Your task to perform on an android device: turn off smart reply in the gmail app Image 0: 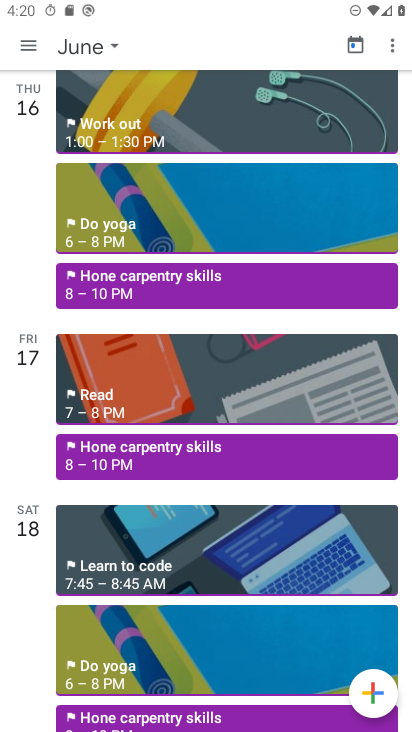
Step 0: press home button
Your task to perform on an android device: turn off smart reply in the gmail app Image 1: 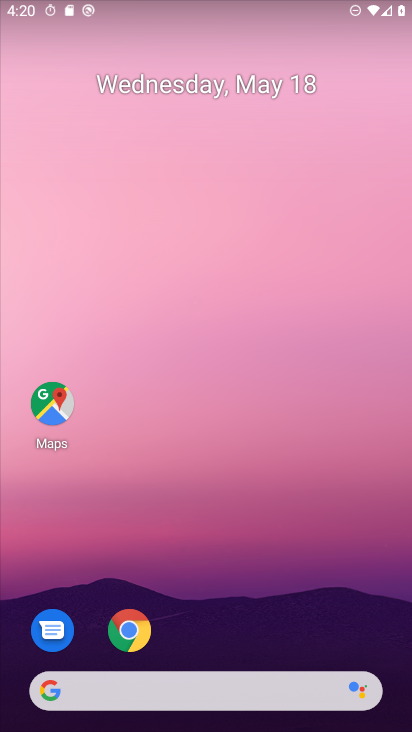
Step 1: press home button
Your task to perform on an android device: turn off smart reply in the gmail app Image 2: 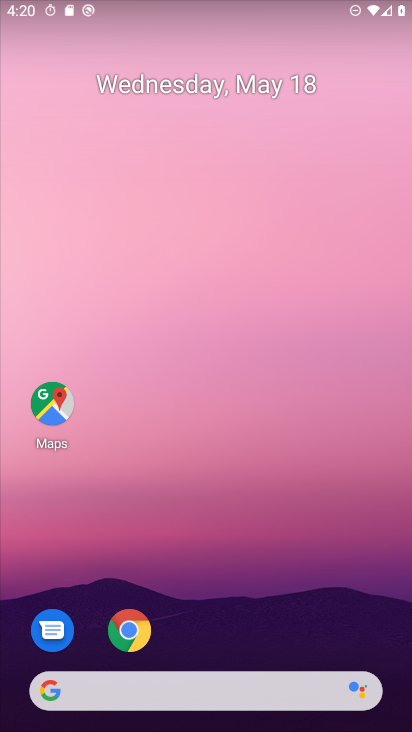
Step 2: drag from (214, 659) to (224, 5)
Your task to perform on an android device: turn off smart reply in the gmail app Image 3: 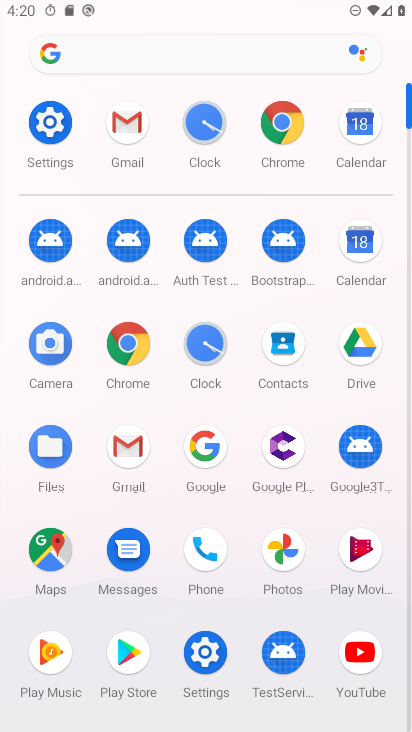
Step 3: click (126, 120)
Your task to perform on an android device: turn off smart reply in the gmail app Image 4: 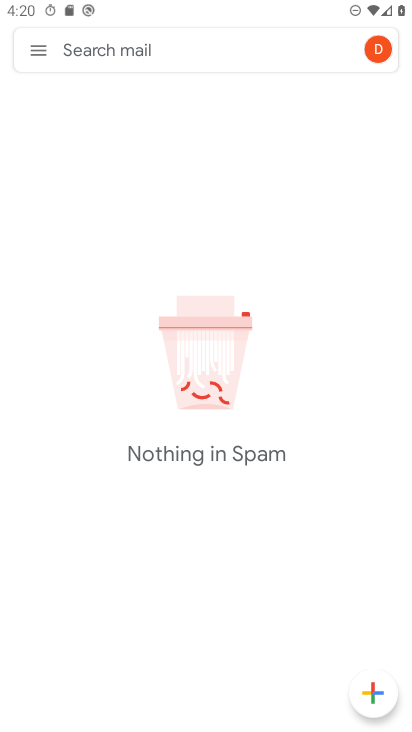
Step 4: click (42, 50)
Your task to perform on an android device: turn off smart reply in the gmail app Image 5: 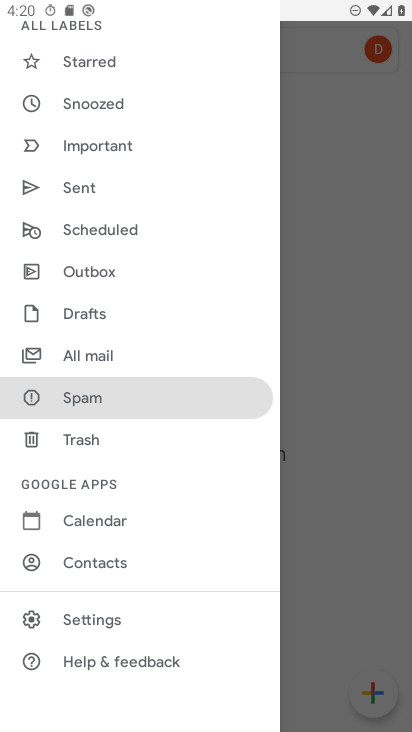
Step 5: click (104, 615)
Your task to perform on an android device: turn off smart reply in the gmail app Image 6: 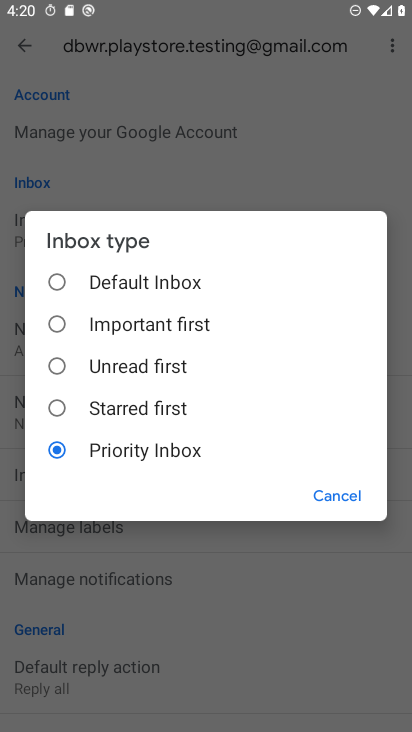
Step 6: click (347, 505)
Your task to perform on an android device: turn off smart reply in the gmail app Image 7: 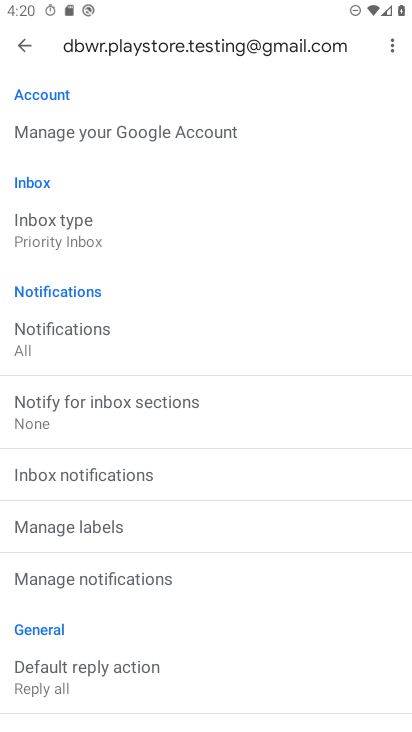
Step 7: drag from (156, 594) to (176, 58)
Your task to perform on an android device: turn off smart reply in the gmail app Image 8: 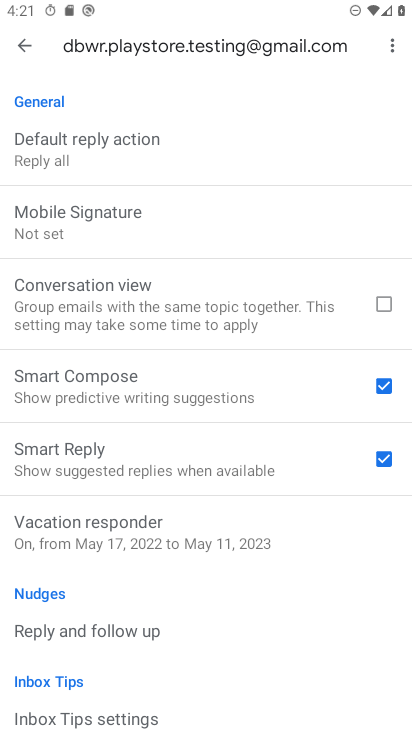
Step 8: click (382, 456)
Your task to perform on an android device: turn off smart reply in the gmail app Image 9: 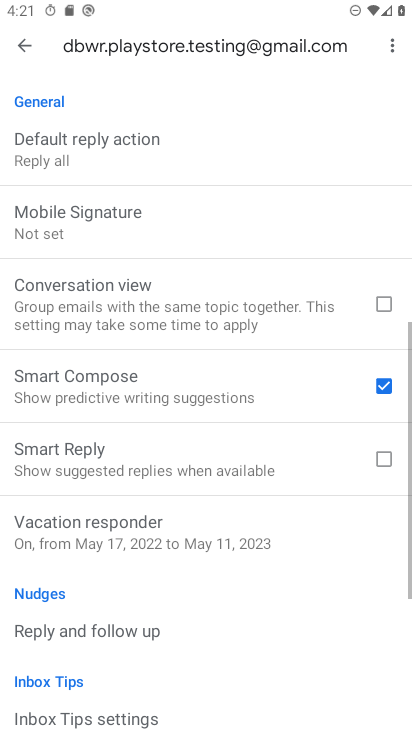
Step 9: task complete